Your task to perform on an android device: Play the last video I watched on Youtube Image 0: 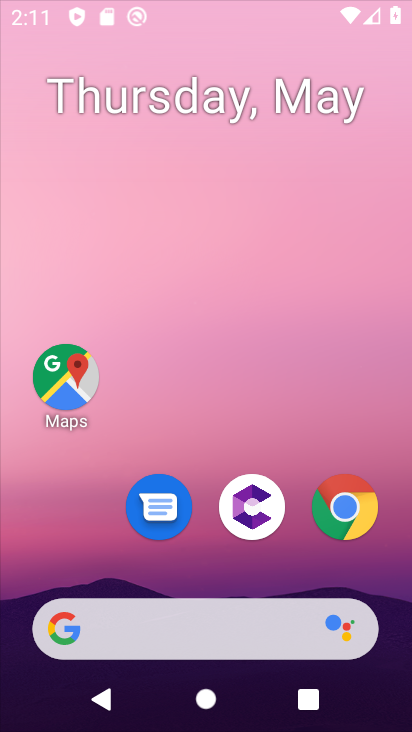
Step 0: press home button
Your task to perform on an android device: Play the last video I watched on Youtube Image 1: 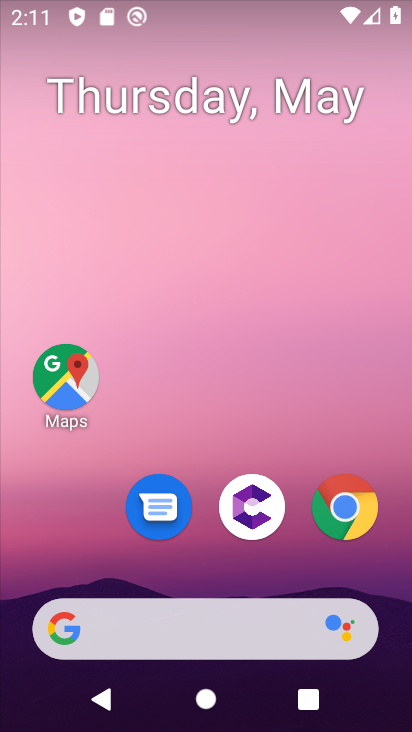
Step 1: drag from (339, 556) to (200, 1)
Your task to perform on an android device: Play the last video I watched on Youtube Image 2: 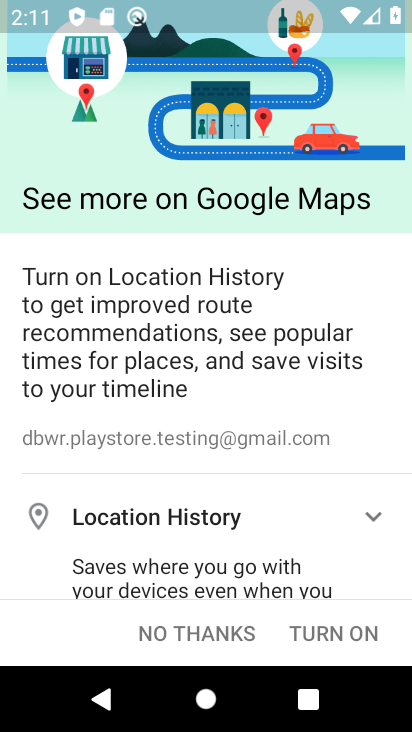
Step 2: click (246, 629)
Your task to perform on an android device: Play the last video I watched on Youtube Image 3: 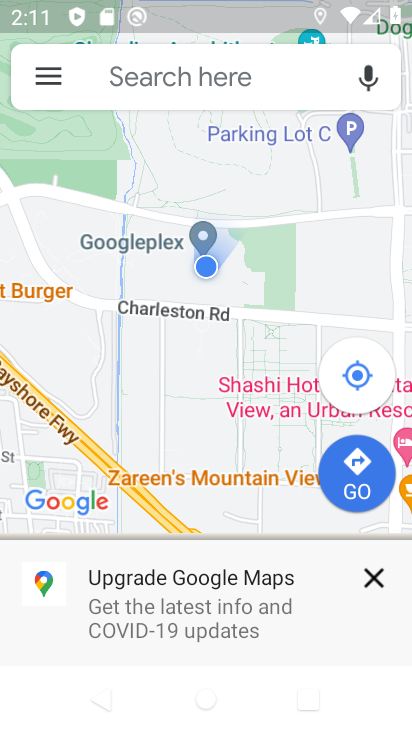
Step 3: press home button
Your task to perform on an android device: Play the last video I watched on Youtube Image 4: 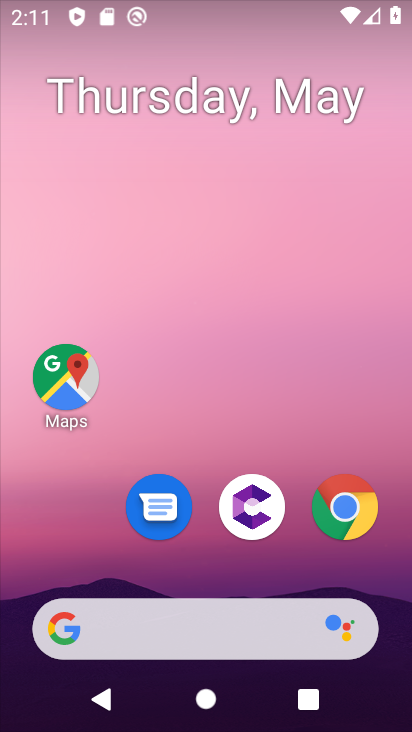
Step 4: drag from (301, 582) to (246, 14)
Your task to perform on an android device: Play the last video I watched on Youtube Image 5: 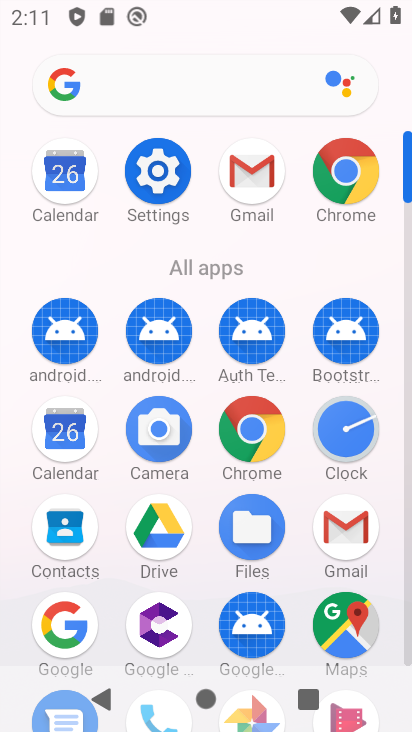
Step 5: drag from (390, 586) to (396, 38)
Your task to perform on an android device: Play the last video I watched on Youtube Image 6: 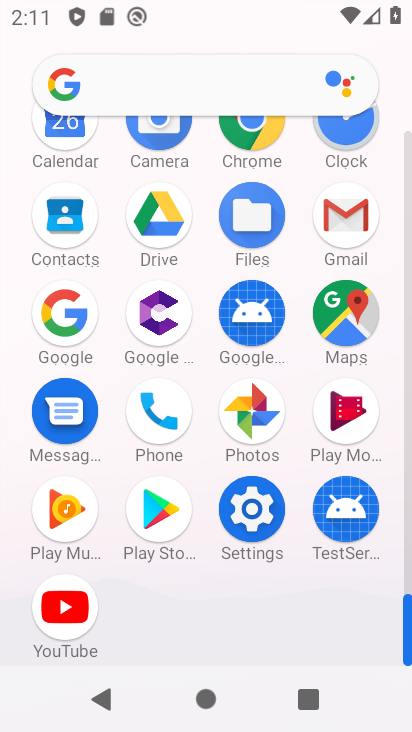
Step 6: click (43, 617)
Your task to perform on an android device: Play the last video I watched on Youtube Image 7: 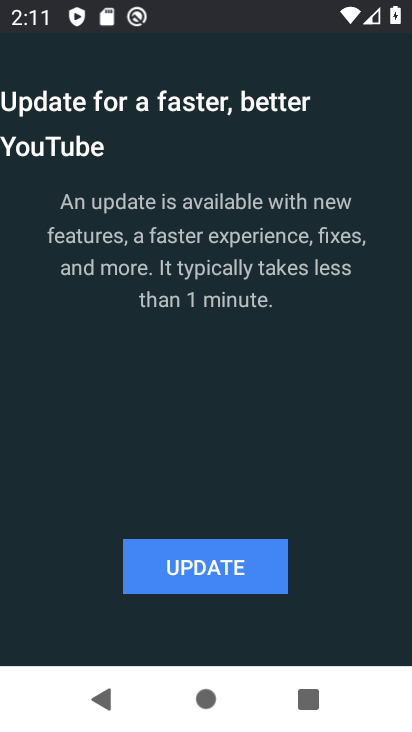
Step 7: click (193, 567)
Your task to perform on an android device: Play the last video I watched on Youtube Image 8: 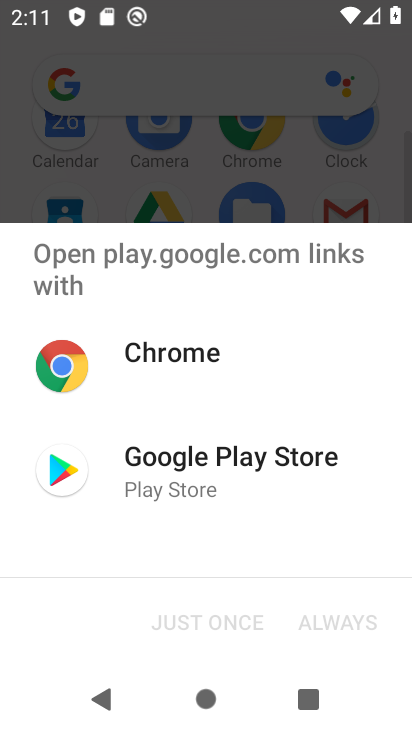
Step 8: click (113, 448)
Your task to perform on an android device: Play the last video I watched on Youtube Image 9: 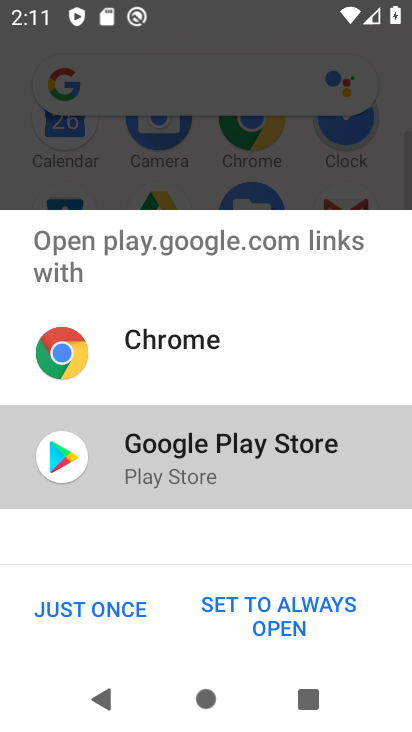
Step 9: click (93, 450)
Your task to perform on an android device: Play the last video I watched on Youtube Image 10: 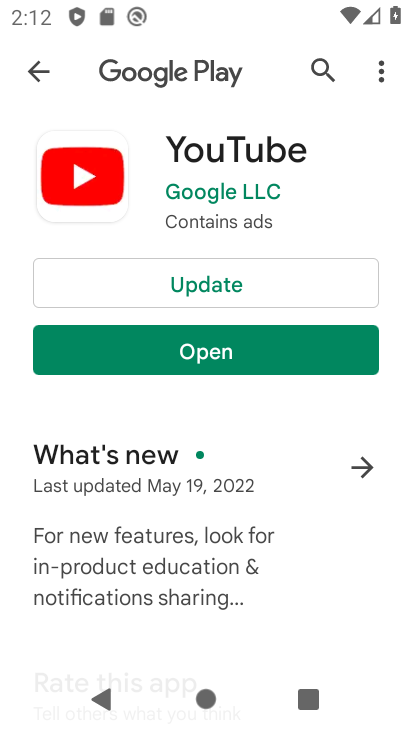
Step 10: click (104, 304)
Your task to perform on an android device: Play the last video I watched on Youtube Image 11: 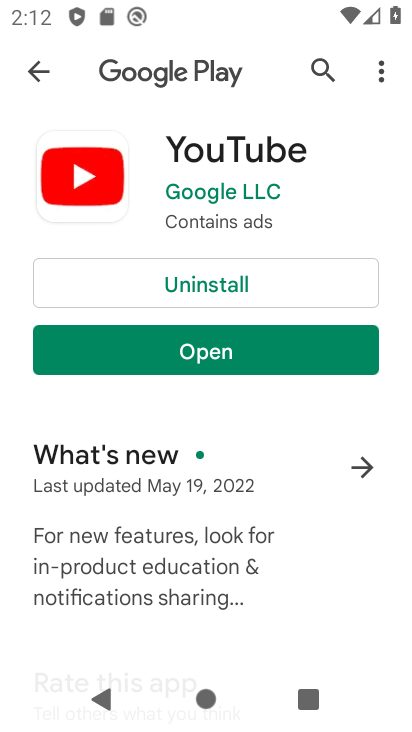
Step 11: click (121, 363)
Your task to perform on an android device: Play the last video I watched on Youtube Image 12: 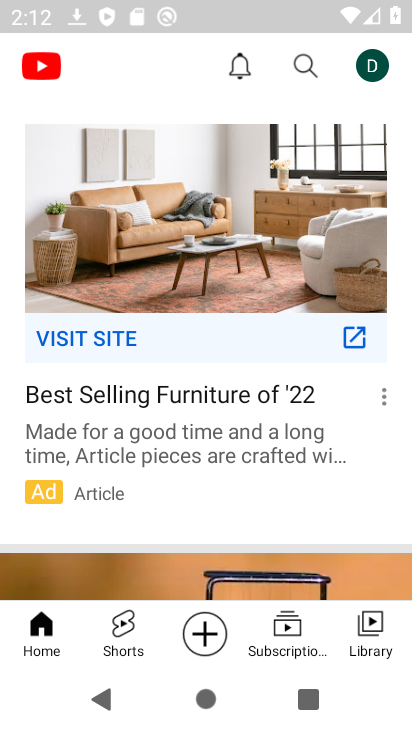
Step 12: click (368, 632)
Your task to perform on an android device: Play the last video I watched on Youtube Image 13: 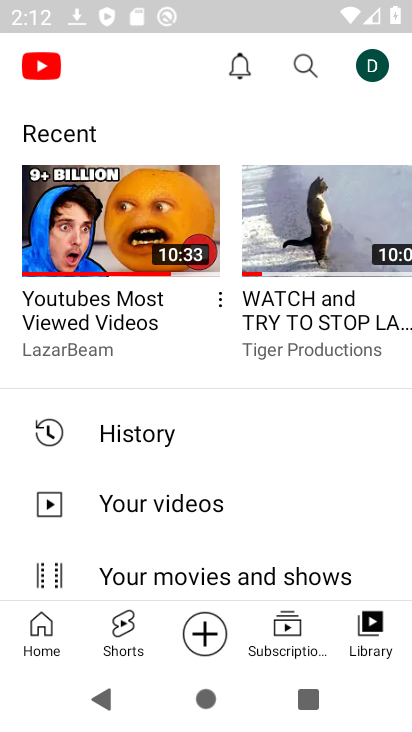
Step 13: click (153, 432)
Your task to perform on an android device: Play the last video I watched on Youtube Image 14: 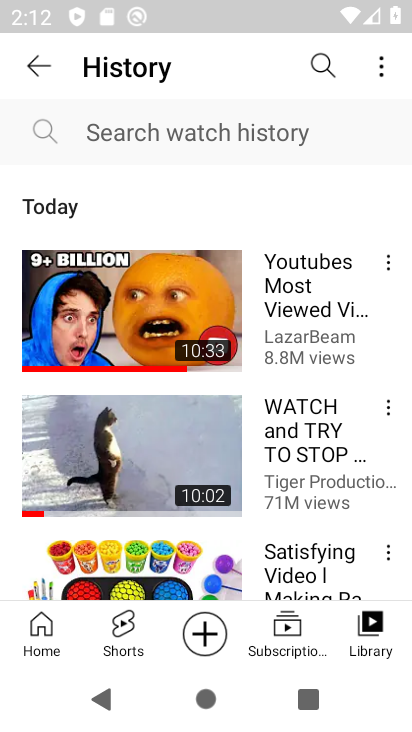
Step 14: click (135, 293)
Your task to perform on an android device: Play the last video I watched on Youtube Image 15: 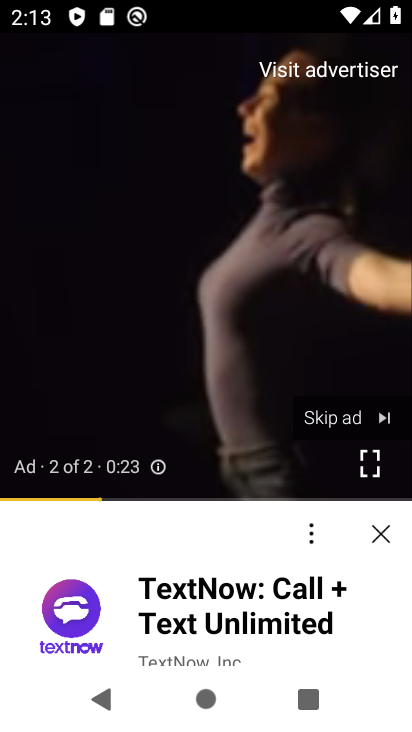
Step 15: click (335, 419)
Your task to perform on an android device: Play the last video I watched on Youtube Image 16: 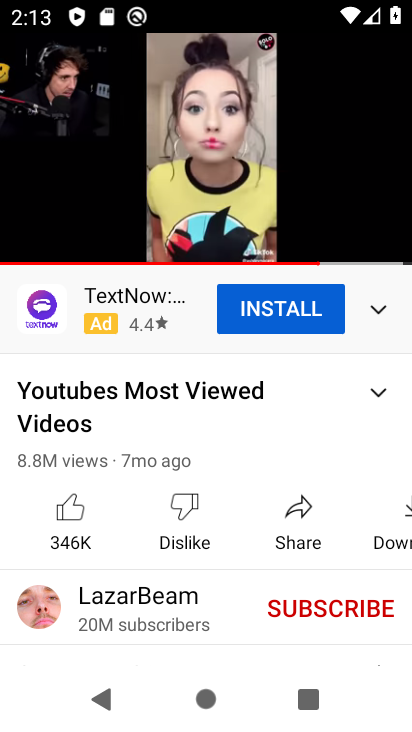
Step 16: task complete